Your task to perform on an android device: turn off wifi Image 0: 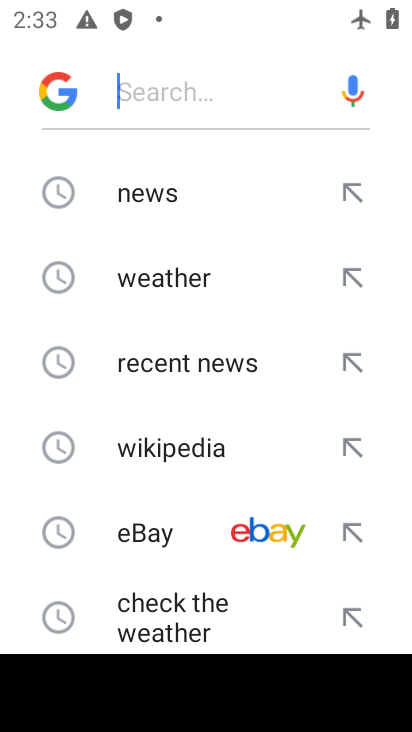
Step 0: press home button
Your task to perform on an android device: turn off wifi Image 1: 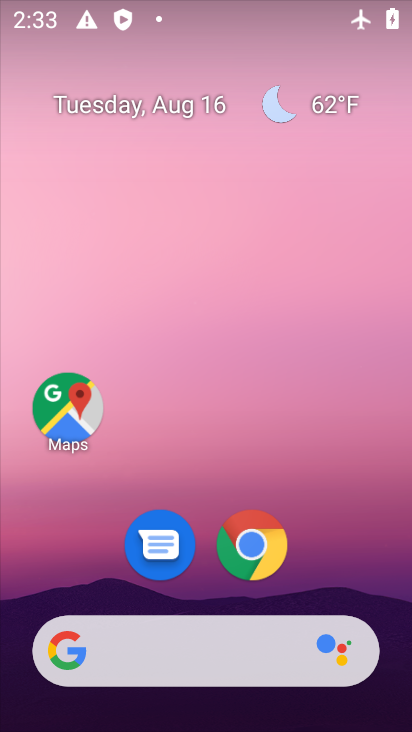
Step 1: drag from (145, 643) to (161, 284)
Your task to perform on an android device: turn off wifi Image 2: 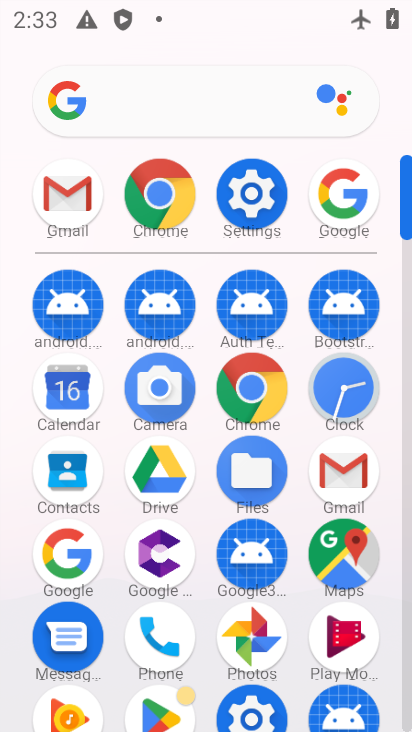
Step 2: click (251, 202)
Your task to perform on an android device: turn off wifi Image 3: 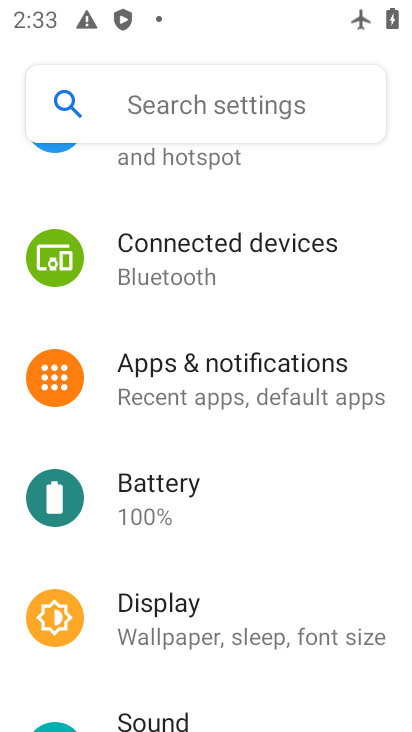
Step 3: drag from (203, 237) to (215, 543)
Your task to perform on an android device: turn off wifi Image 4: 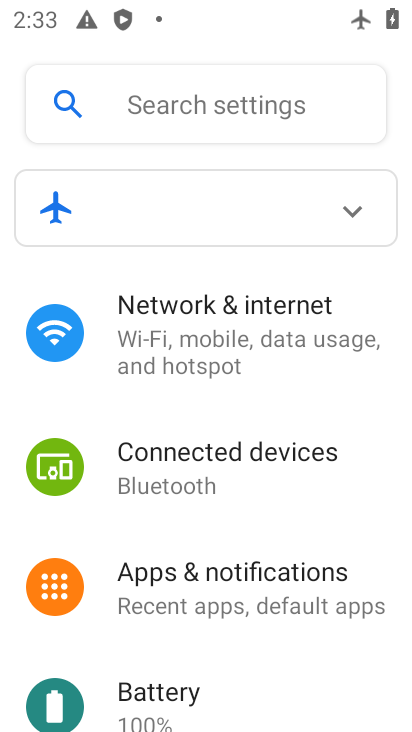
Step 4: click (194, 340)
Your task to perform on an android device: turn off wifi Image 5: 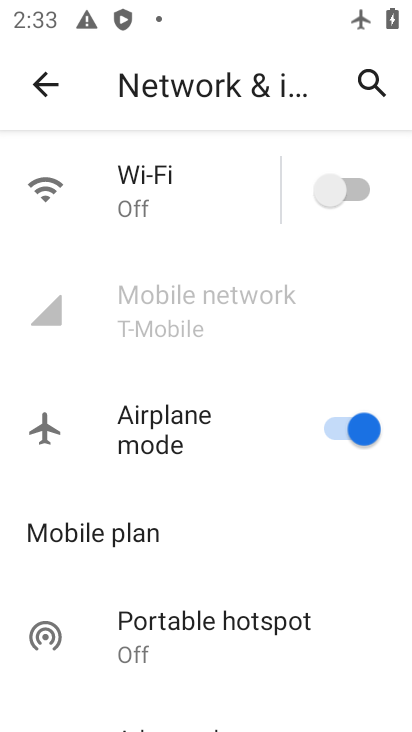
Step 5: click (342, 428)
Your task to perform on an android device: turn off wifi Image 6: 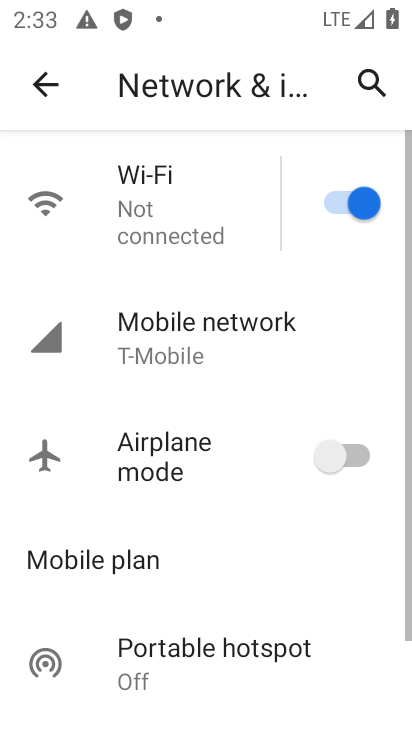
Step 6: click (336, 192)
Your task to perform on an android device: turn off wifi Image 7: 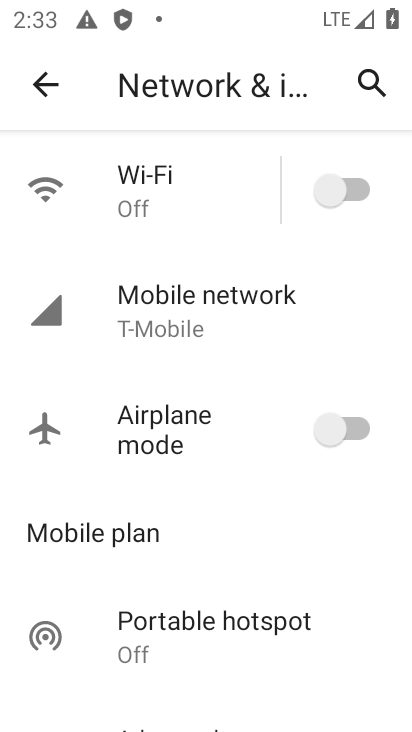
Step 7: task complete